Your task to perform on an android device: open app "eBay: The shopping marketplace" (install if not already installed) and go to login screen Image 0: 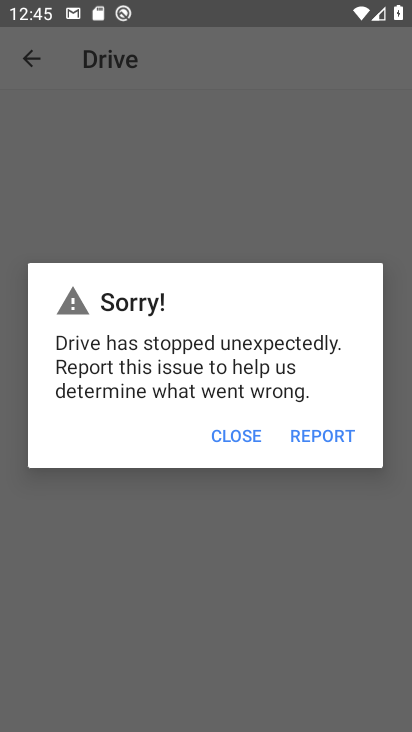
Step 0: click (231, 440)
Your task to perform on an android device: open app "eBay: The shopping marketplace" (install if not already installed) and go to login screen Image 1: 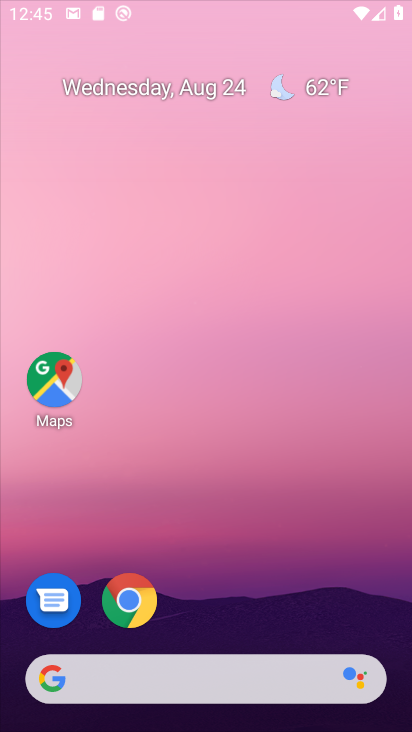
Step 1: press home button
Your task to perform on an android device: open app "eBay: The shopping marketplace" (install if not already installed) and go to login screen Image 2: 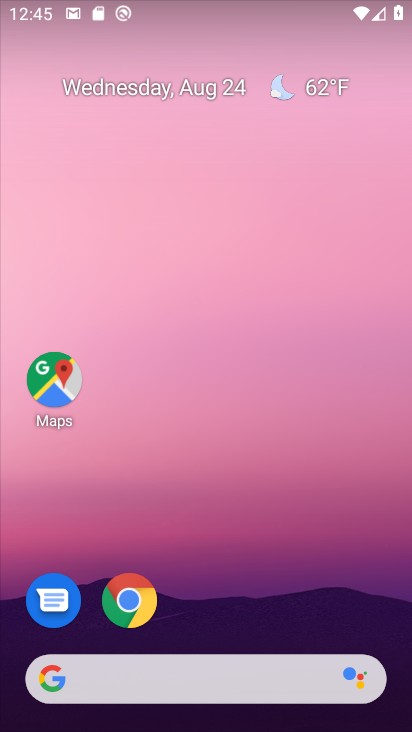
Step 2: drag from (267, 603) to (283, 85)
Your task to perform on an android device: open app "eBay: The shopping marketplace" (install if not already installed) and go to login screen Image 3: 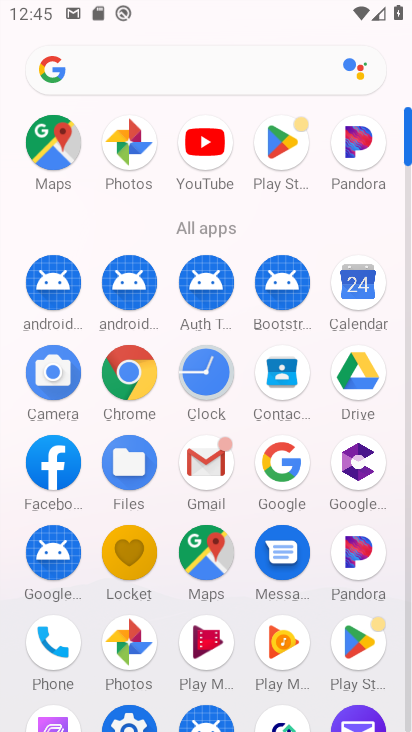
Step 3: click (277, 163)
Your task to perform on an android device: open app "eBay: The shopping marketplace" (install if not already installed) and go to login screen Image 4: 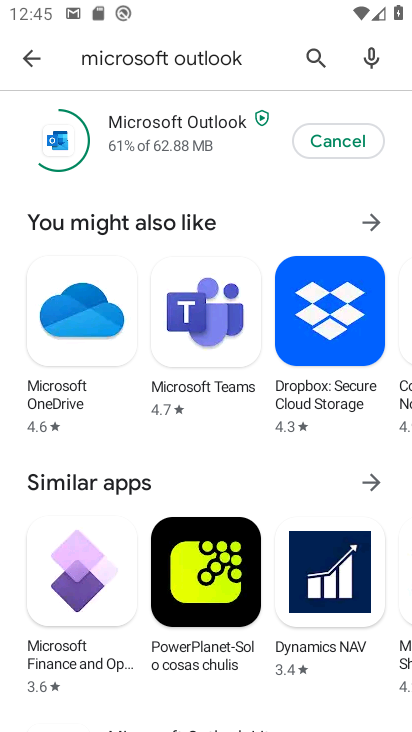
Step 4: click (329, 62)
Your task to perform on an android device: open app "eBay: The shopping marketplace" (install if not already installed) and go to login screen Image 5: 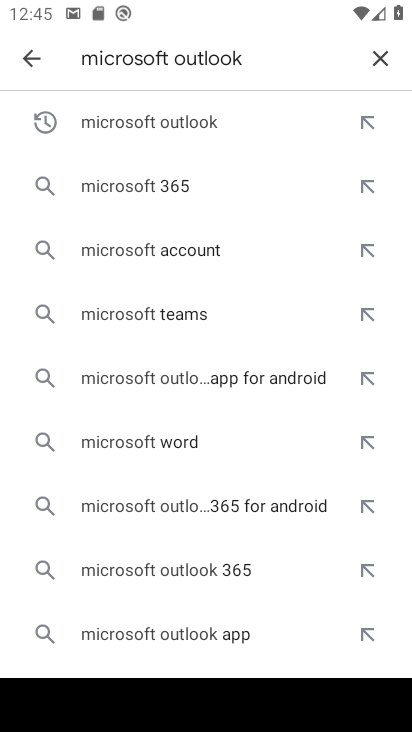
Step 5: click (372, 61)
Your task to perform on an android device: open app "eBay: The shopping marketplace" (install if not already installed) and go to login screen Image 6: 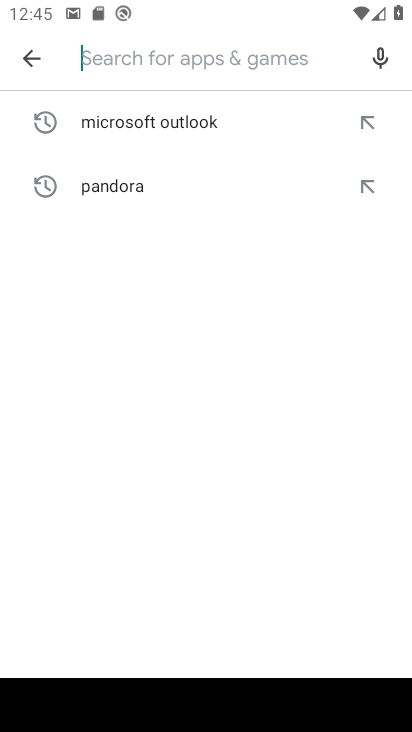
Step 6: type "ebay"
Your task to perform on an android device: open app "eBay: The shopping marketplace" (install if not already installed) and go to login screen Image 7: 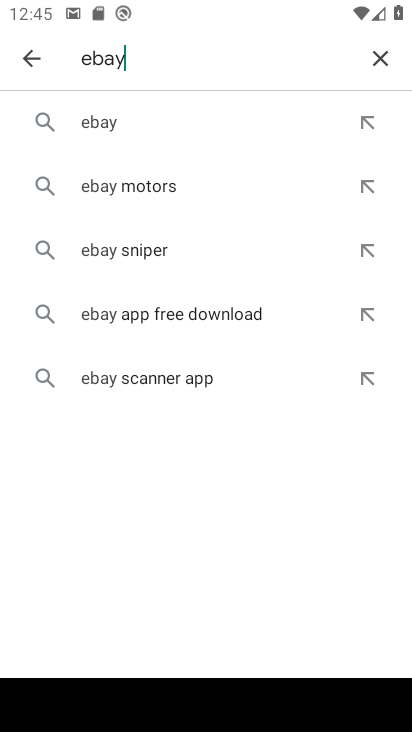
Step 7: click (241, 132)
Your task to perform on an android device: open app "eBay: The shopping marketplace" (install if not already installed) and go to login screen Image 8: 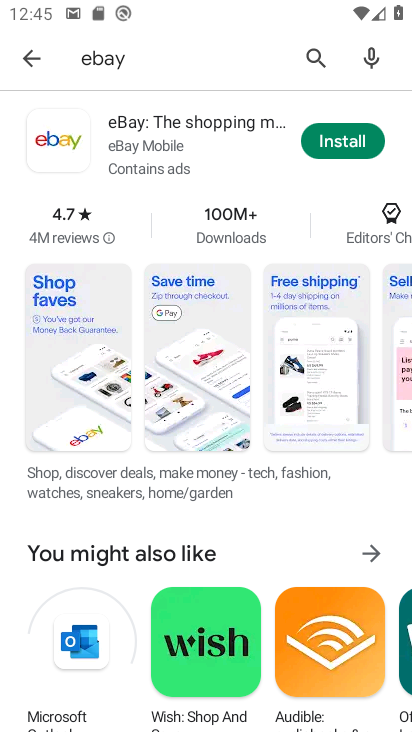
Step 8: click (325, 131)
Your task to perform on an android device: open app "eBay: The shopping marketplace" (install if not already installed) and go to login screen Image 9: 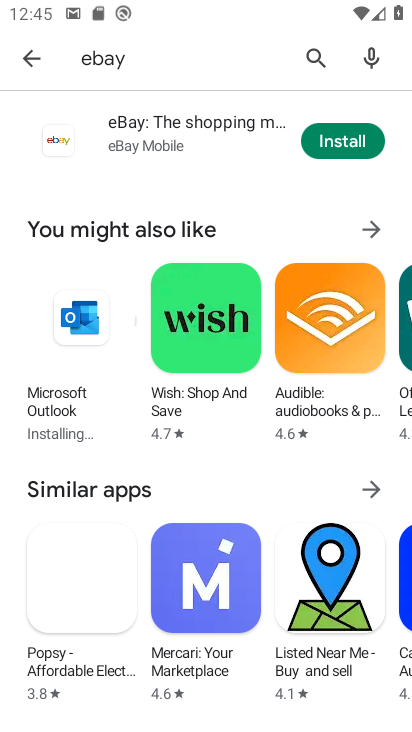
Step 9: task complete